Your task to perform on an android device: toggle airplane mode Image 0: 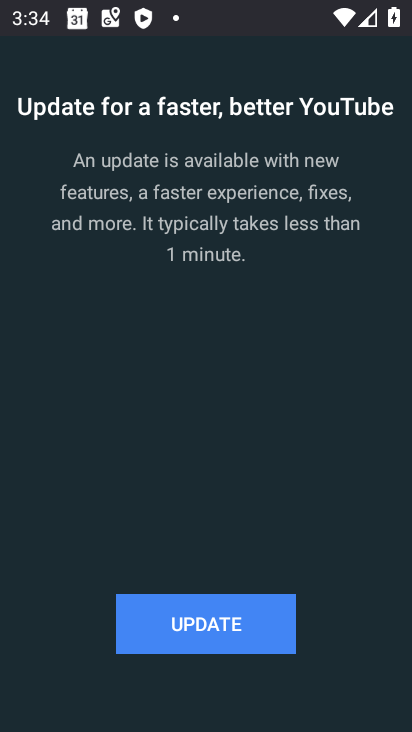
Step 0: press back button
Your task to perform on an android device: toggle airplane mode Image 1: 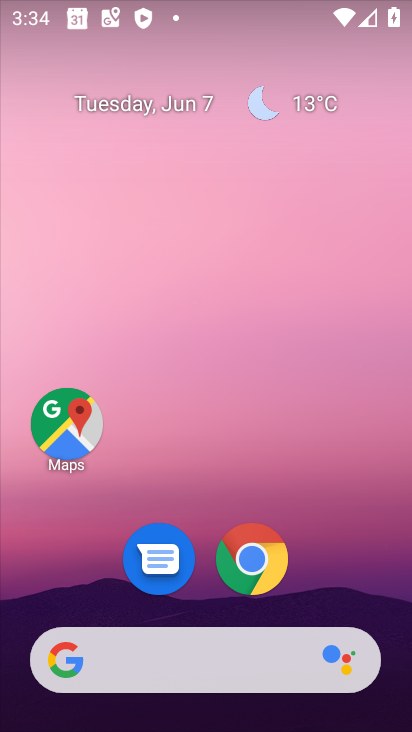
Step 1: drag from (356, 547) to (244, 98)
Your task to perform on an android device: toggle airplane mode Image 2: 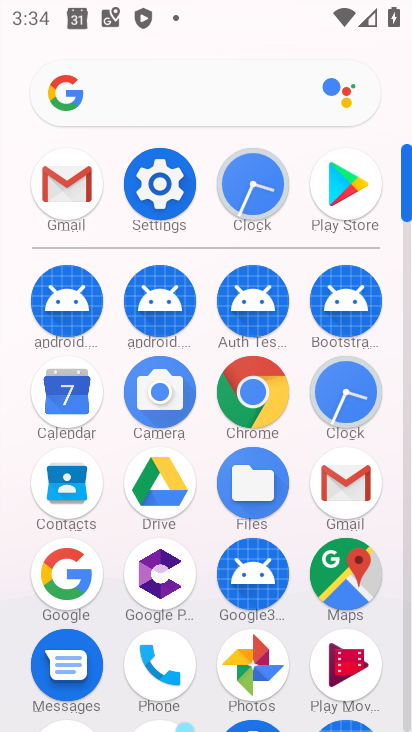
Step 2: click (162, 181)
Your task to perform on an android device: toggle airplane mode Image 3: 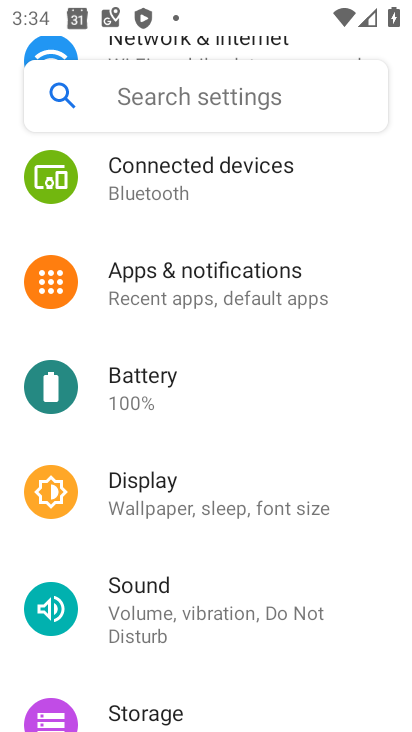
Step 3: drag from (204, 235) to (220, 503)
Your task to perform on an android device: toggle airplane mode Image 4: 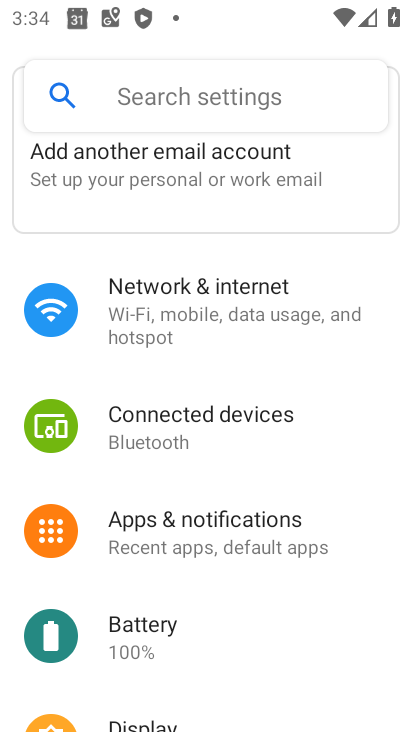
Step 4: click (204, 281)
Your task to perform on an android device: toggle airplane mode Image 5: 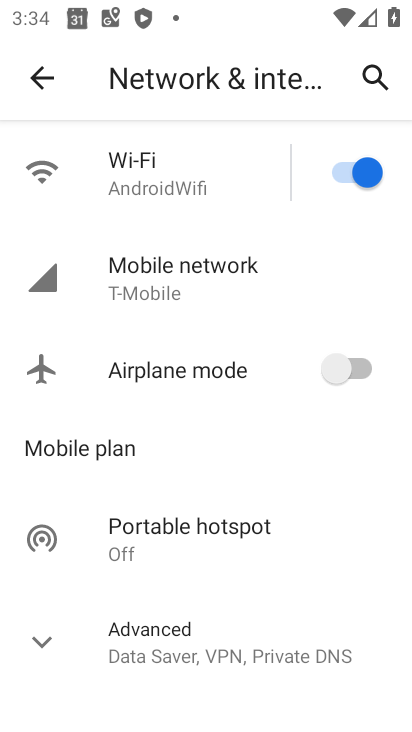
Step 5: click (327, 369)
Your task to perform on an android device: toggle airplane mode Image 6: 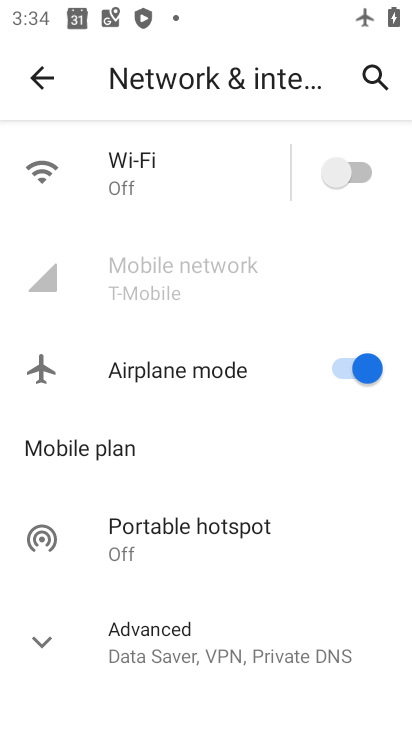
Step 6: task complete